Your task to perform on an android device: Is it going to rain this weekend? Image 0: 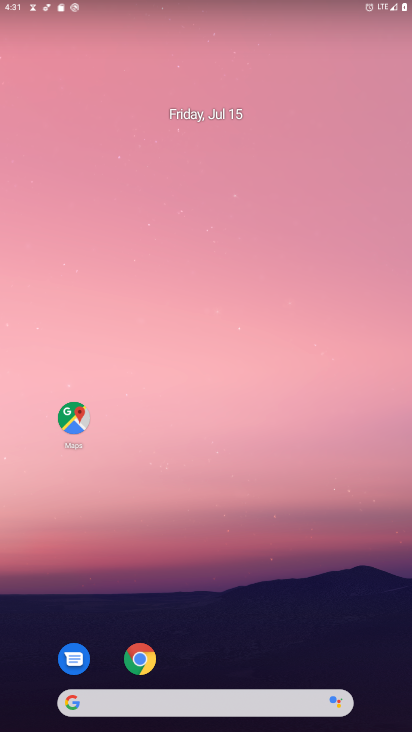
Step 0: drag from (198, 632) to (201, 88)
Your task to perform on an android device: Is it going to rain this weekend? Image 1: 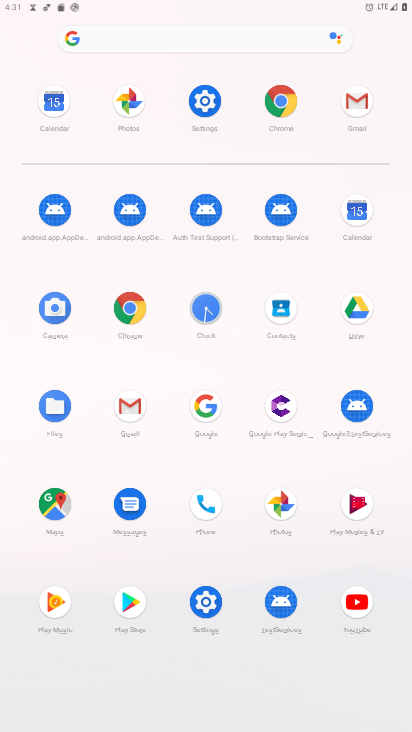
Step 1: click (367, 215)
Your task to perform on an android device: Is it going to rain this weekend? Image 2: 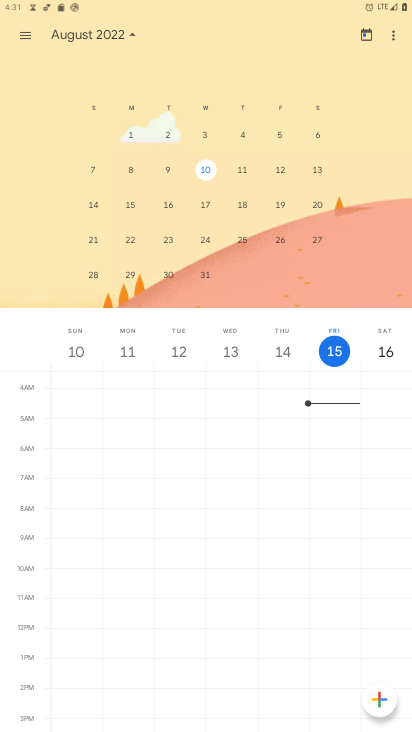
Step 2: click (134, 35)
Your task to perform on an android device: Is it going to rain this weekend? Image 3: 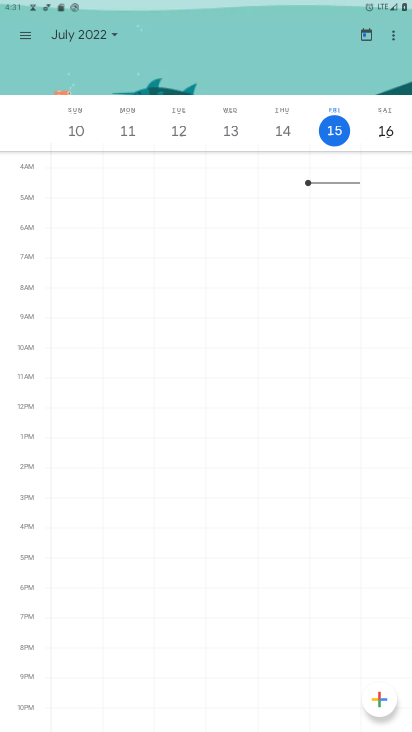
Step 3: press home button
Your task to perform on an android device: Is it going to rain this weekend? Image 4: 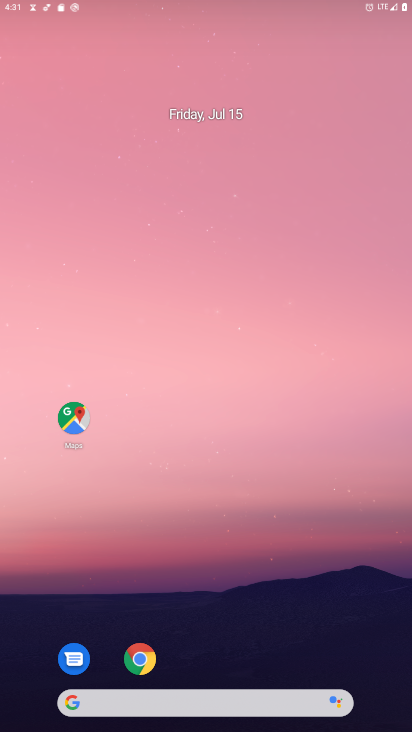
Step 4: drag from (221, 657) to (199, 4)
Your task to perform on an android device: Is it going to rain this weekend? Image 5: 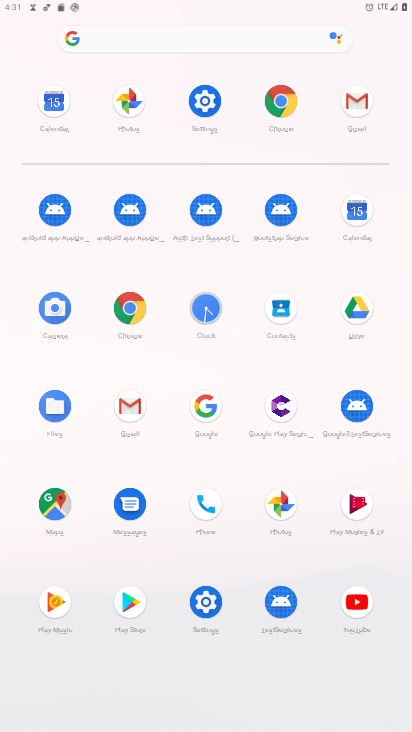
Step 5: click (135, 302)
Your task to perform on an android device: Is it going to rain this weekend? Image 6: 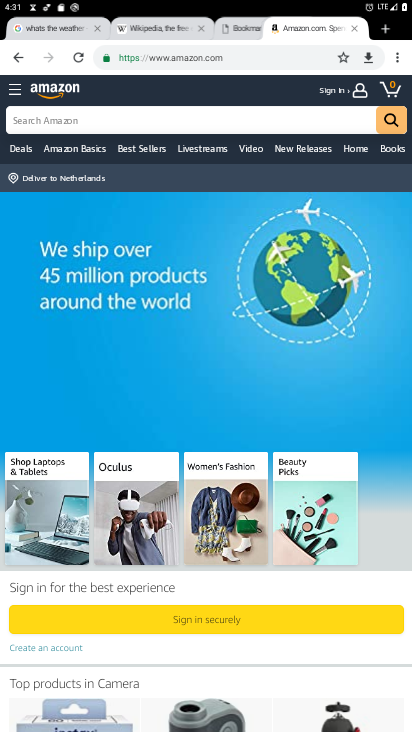
Step 6: click (228, 56)
Your task to perform on an android device: Is it going to rain this weekend? Image 7: 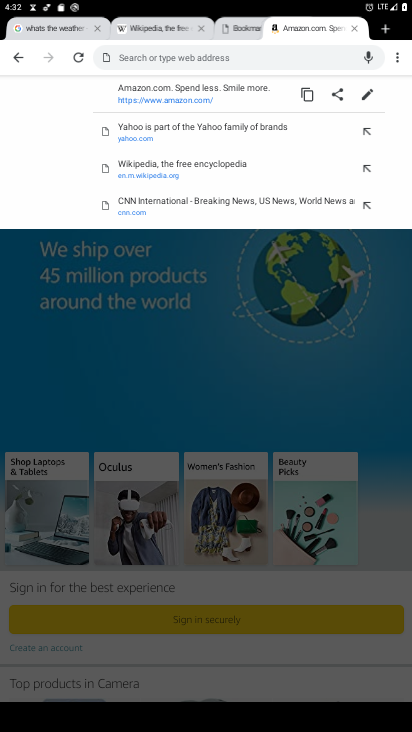
Step 7: type "going to rain this weekend"
Your task to perform on an android device: Is it going to rain this weekend? Image 8: 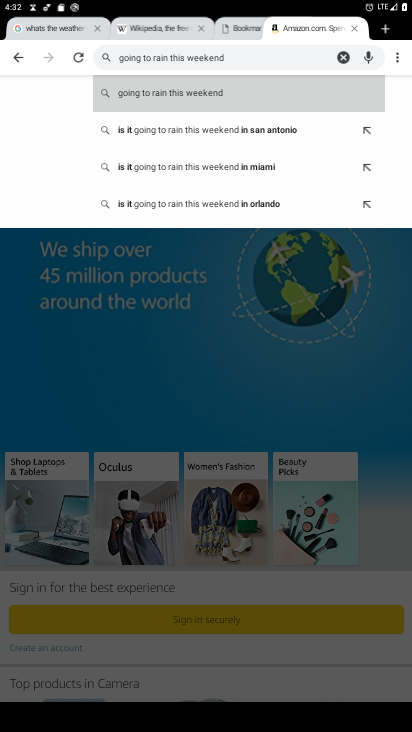
Step 8: click (195, 101)
Your task to perform on an android device: Is it going to rain this weekend? Image 9: 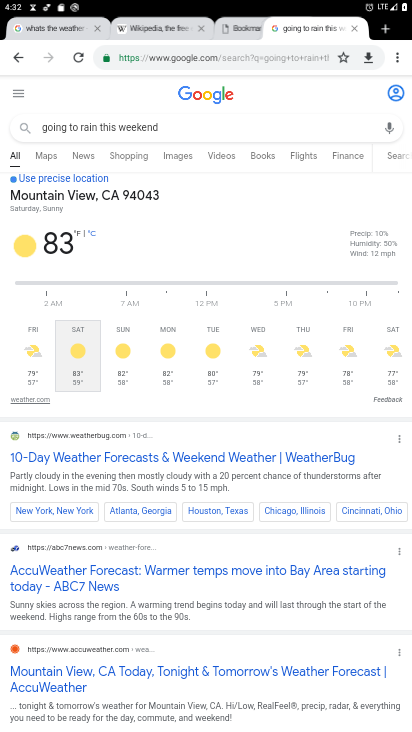
Step 9: task complete